Your task to perform on an android device: When is my next meeting? Image 0: 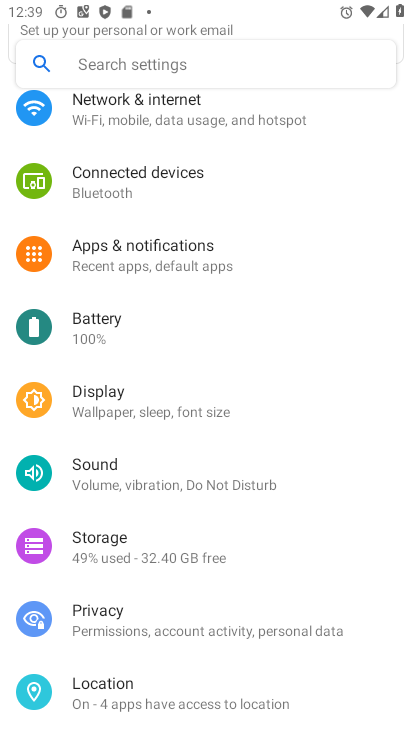
Step 0: press home button
Your task to perform on an android device: When is my next meeting? Image 1: 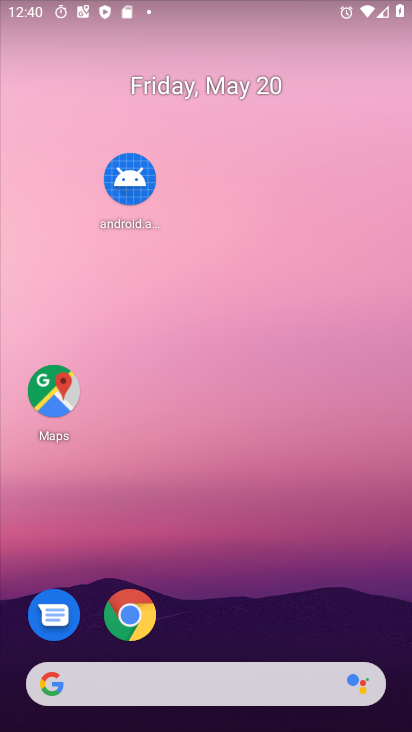
Step 1: drag from (298, 614) to (260, 13)
Your task to perform on an android device: When is my next meeting? Image 2: 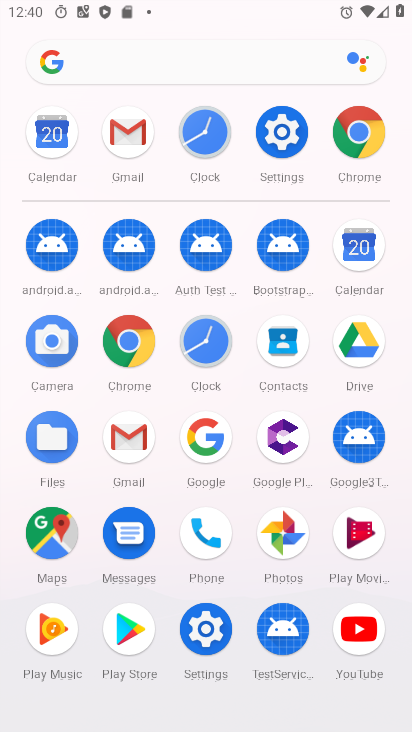
Step 2: click (356, 245)
Your task to perform on an android device: When is my next meeting? Image 3: 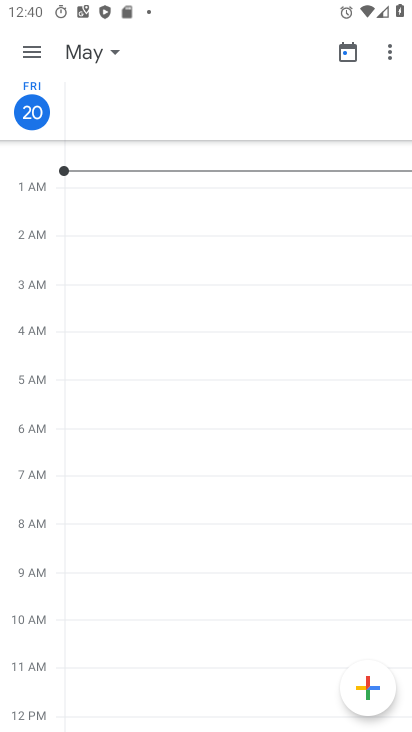
Step 3: click (25, 54)
Your task to perform on an android device: When is my next meeting? Image 4: 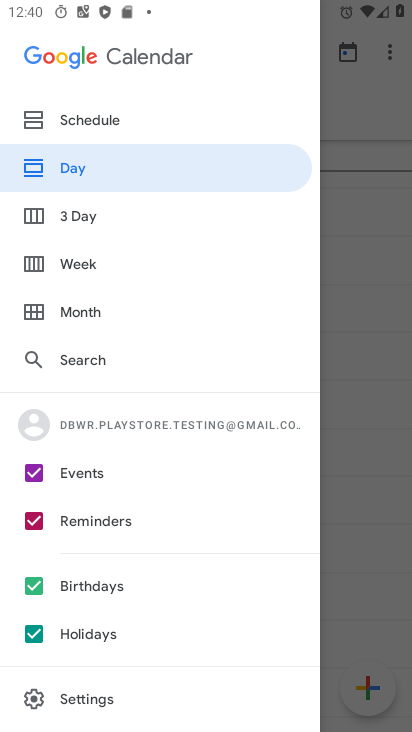
Step 4: click (133, 125)
Your task to perform on an android device: When is my next meeting? Image 5: 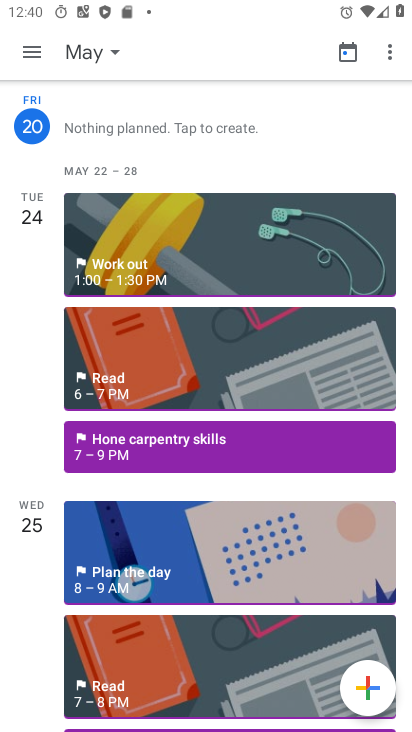
Step 5: task complete